Your task to perform on an android device: turn on notifications settings in the gmail app Image 0: 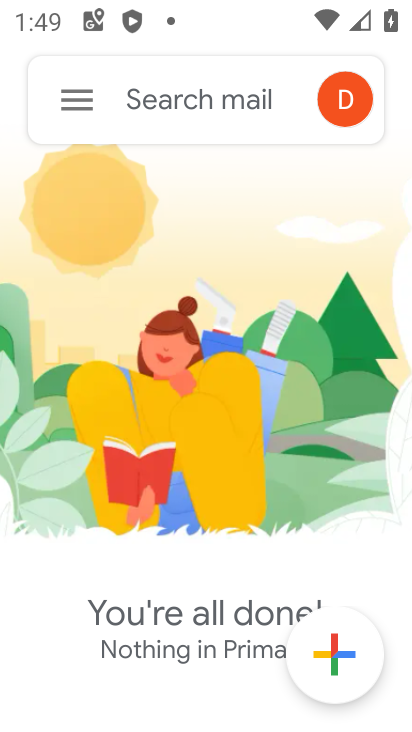
Step 0: press home button
Your task to perform on an android device: turn on notifications settings in the gmail app Image 1: 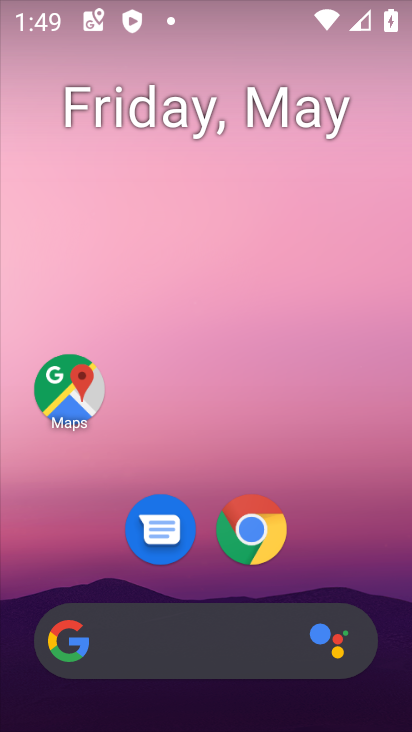
Step 1: drag from (355, 550) to (151, 14)
Your task to perform on an android device: turn on notifications settings in the gmail app Image 2: 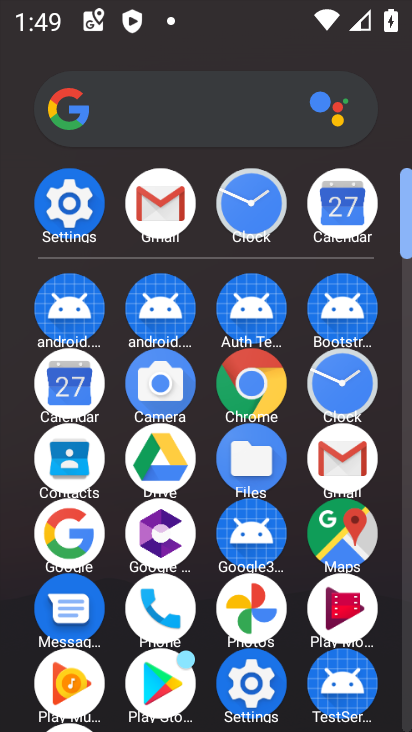
Step 2: click (151, 191)
Your task to perform on an android device: turn on notifications settings in the gmail app Image 3: 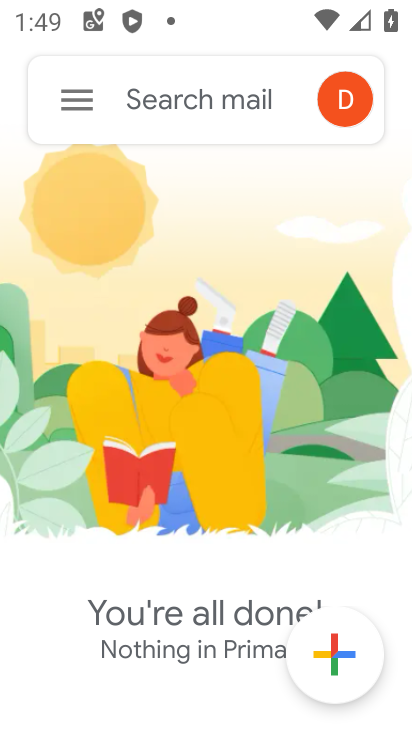
Step 3: click (94, 107)
Your task to perform on an android device: turn on notifications settings in the gmail app Image 4: 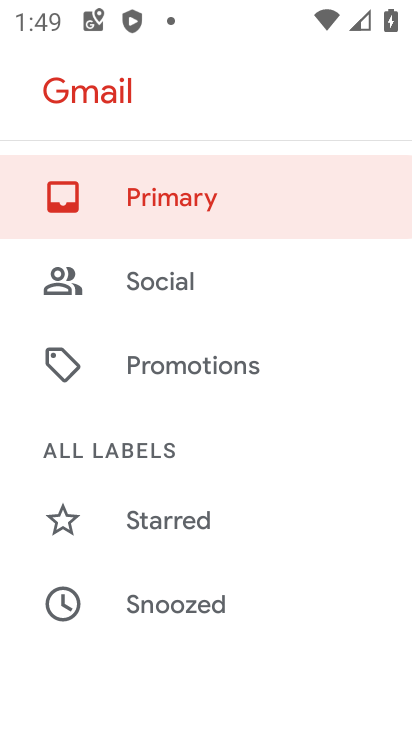
Step 4: drag from (156, 634) to (155, 244)
Your task to perform on an android device: turn on notifications settings in the gmail app Image 5: 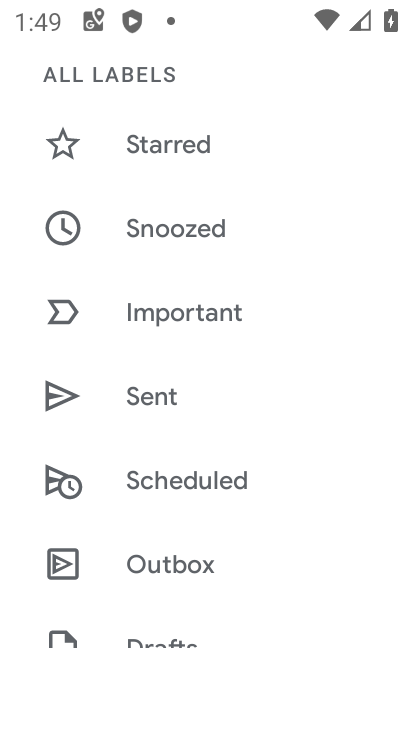
Step 5: drag from (169, 620) to (223, 62)
Your task to perform on an android device: turn on notifications settings in the gmail app Image 6: 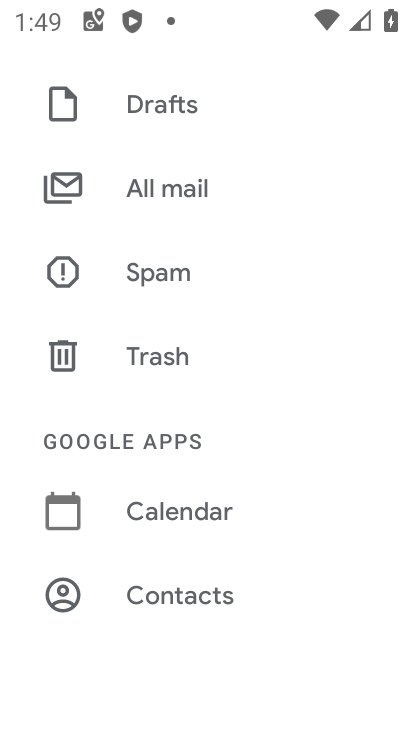
Step 6: drag from (146, 607) to (160, 301)
Your task to perform on an android device: turn on notifications settings in the gmail app Image 7: 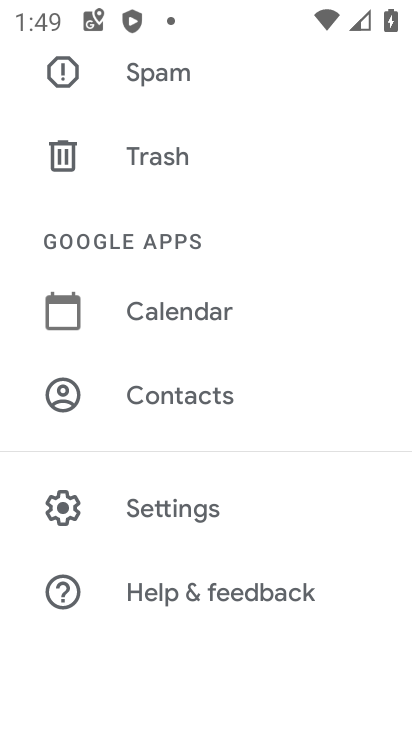
Step 7: click (160, 301)
Your task to perform on an android device: turn on notifications settings in the gmail app Image 8: 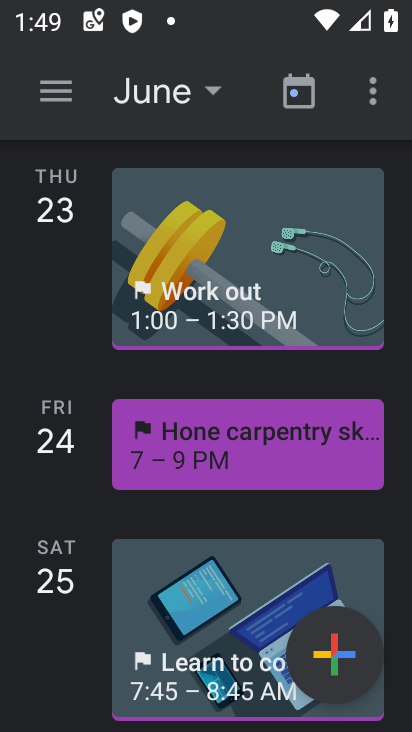
Step 8: press back button
Your task to perform on an android device: turn on notifications settings in the gmail app Image 9: 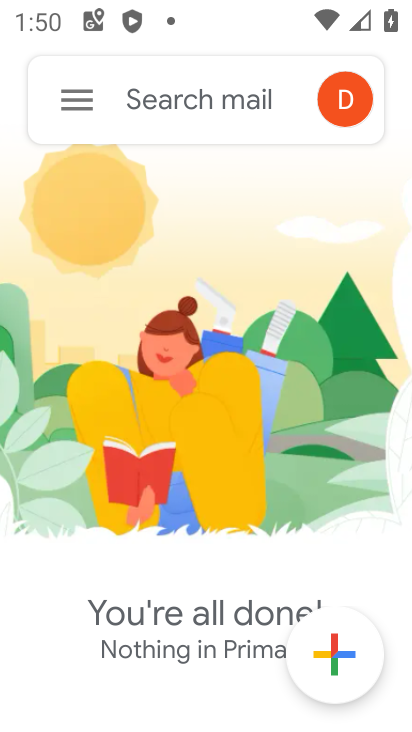
Step 9: click (81, 112)
Your task to perform on an android device: turn on notifications settings in the gmail app Image 10: 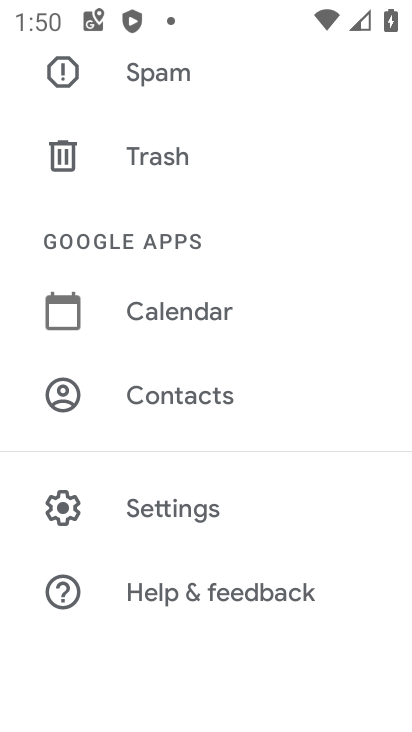
Step 10: click (69, 493)
Your task to perform on an android device: turn on notifications settings in the gmail app Image 11: 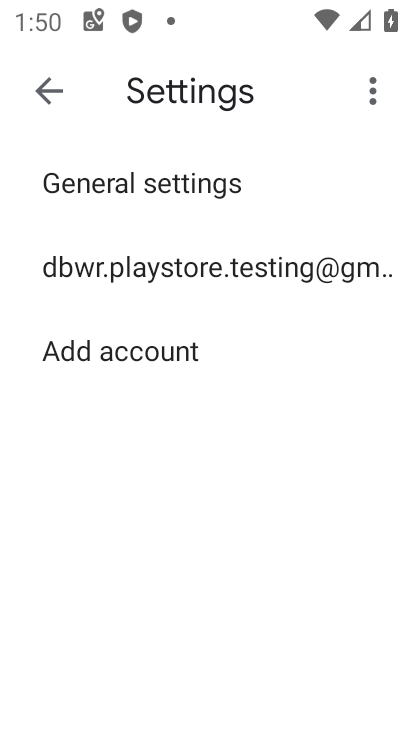
Step 11: click (82, 199)
Your task to perform on an android device: turn on notifications settings in the gmail app Image 12: 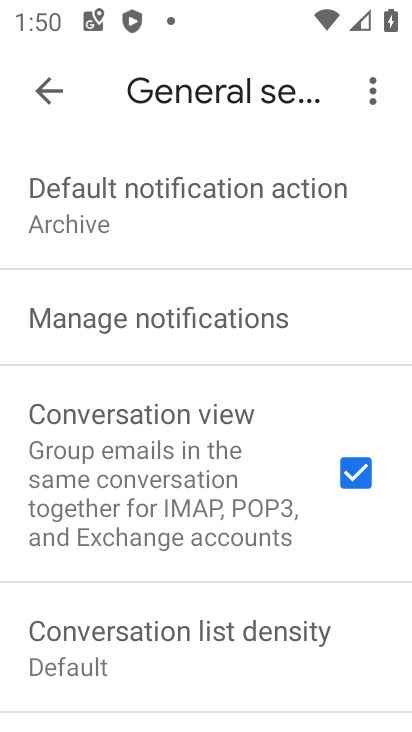
Step 12: click (112, 319)
Your task to perform on an android device: turn on notifications settings in the gmail app Image 13: 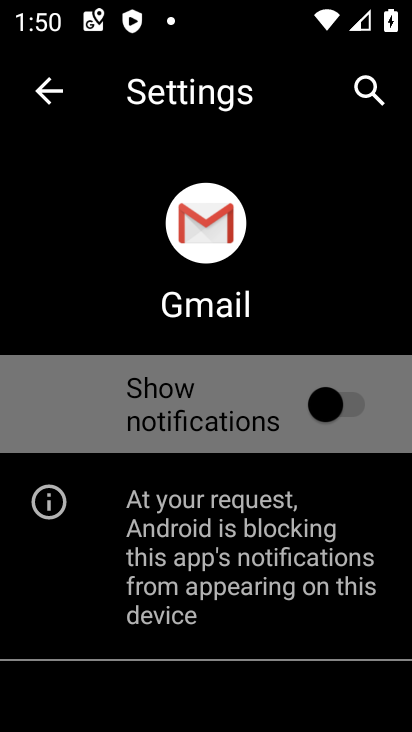
Step 13: click (266, 407)
Your task to perform on an android device: turn on notifications settings in the gmail app Image 14: 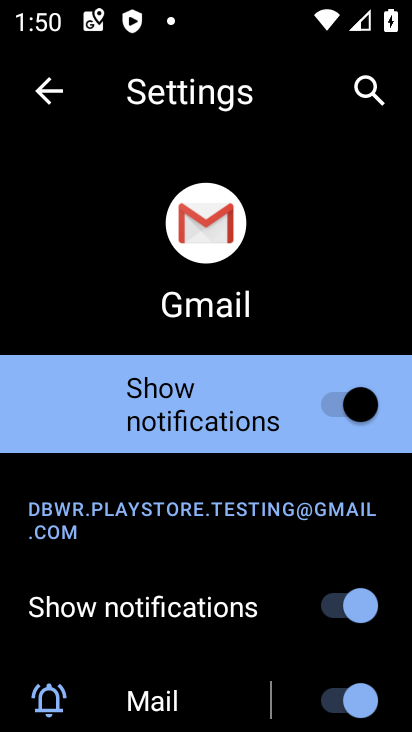
Step 14: task complete